Your task to perform on an android device: check data usage Image 0: 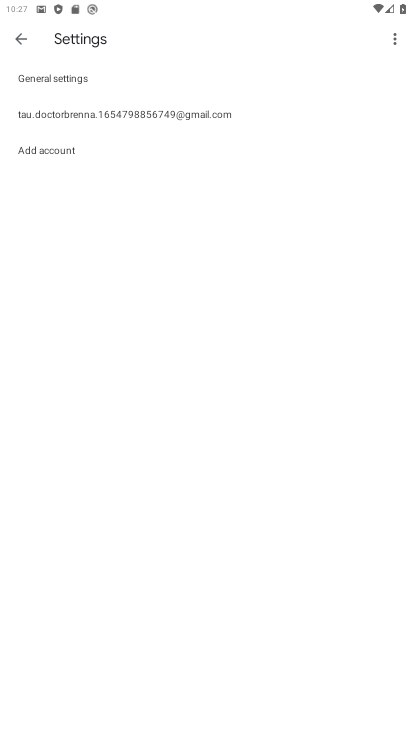
Step 0: press home button
Your task to perform on an android device: check data usage Image 1: 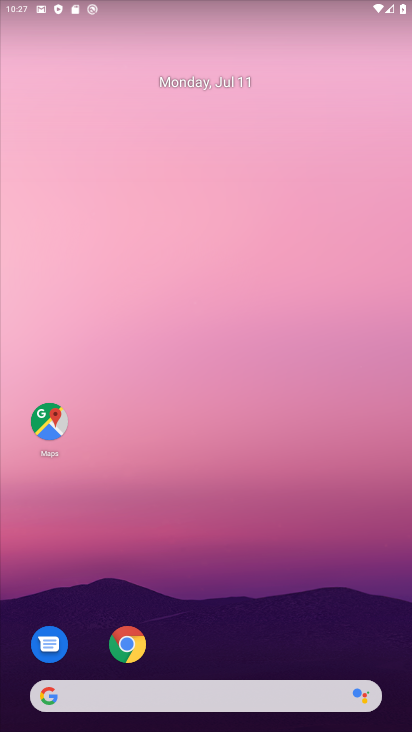
Step 1: drag from (229, 583) to (202, 19)
Your task to perform on an android device: check data usage Image 2: 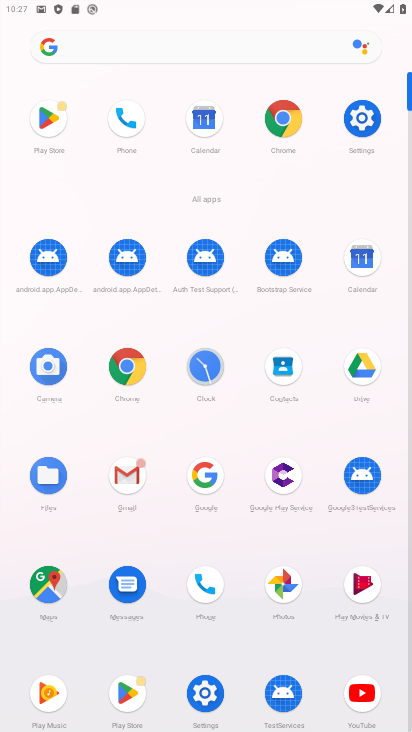
Step 2: click (366, 113)
Your task to perform on an android device: check data usage Image 3: 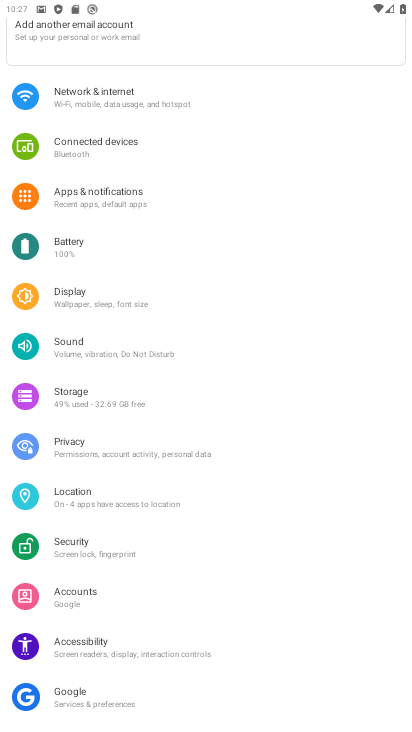
Step 3: click (89, 95)
Your task to perform on an android device: check data usage Image 4: 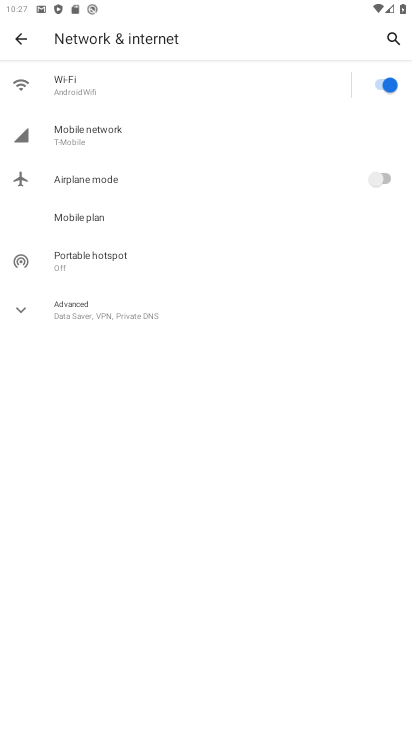
Step 4: click (110, 124)
Your task to perform on an android device: check data usage Image 5: 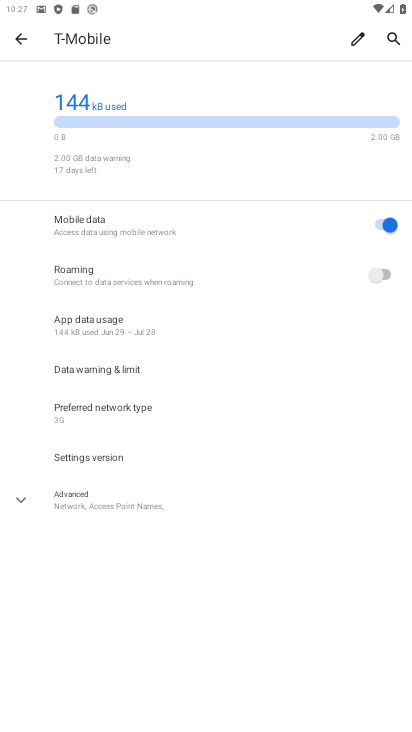
Step 5: task complete